Your task to perform on an android device: allow notifications from all sites in the chrome app Image 0: 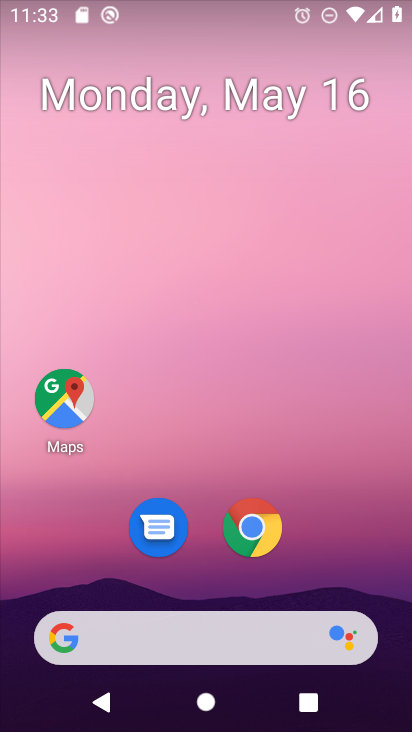
Step 0: click (262, 529)
Your task to perform on an android device: allow notifications from all sites in the chrome app Image 1: 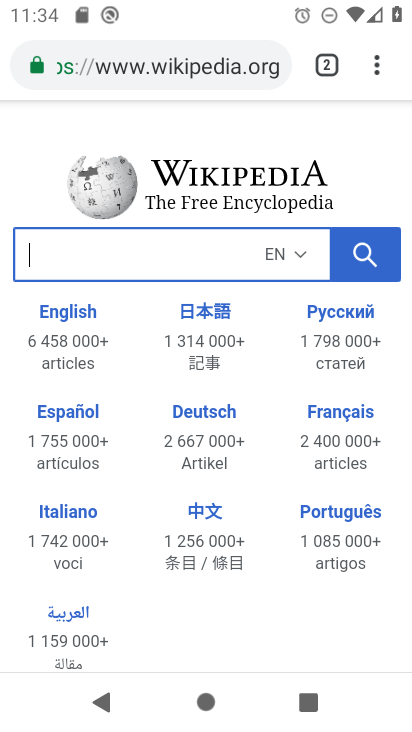
Step 1: click (378, 66)
Your task to perform on an android device: allow notifications from all sites in the chrome app Image 2: 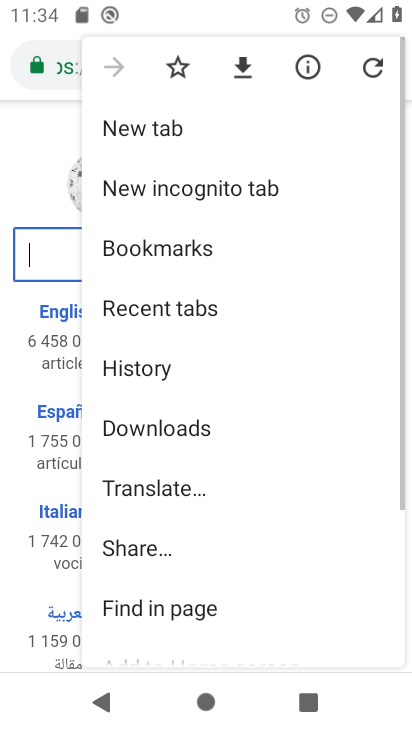
Step 2: drag from (221, 531) to (214, 152)
Your task to perform on an android device: allow notifications from all sites in the chrome app Image 3: 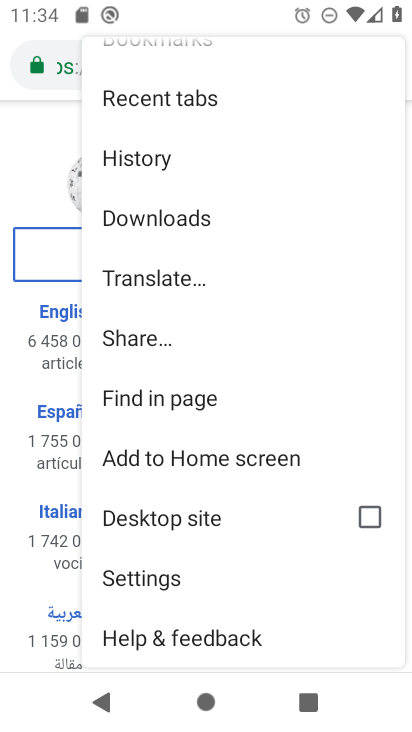
Step 3: click (168, 568)
Your task to perform on an android device: allow notifications from all sites in the chrome app Image 4: 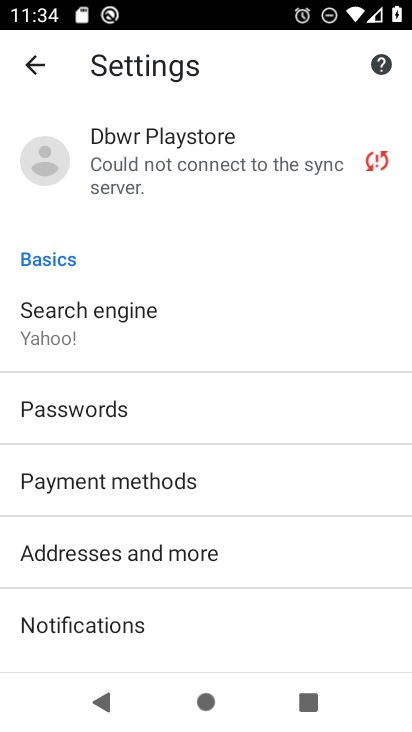
Step 4: drag from (168, 568) to (191, 21)
Your task to perform on an android device: allow notifications from all sites in the chrome app Image 5: 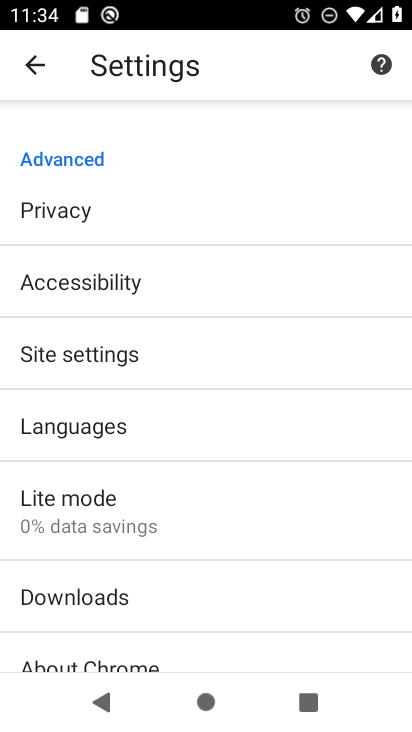
Step 5: click (79, 350)
Your task to perform on an android device: allow notifications from all sites in the chrome app Image 6: 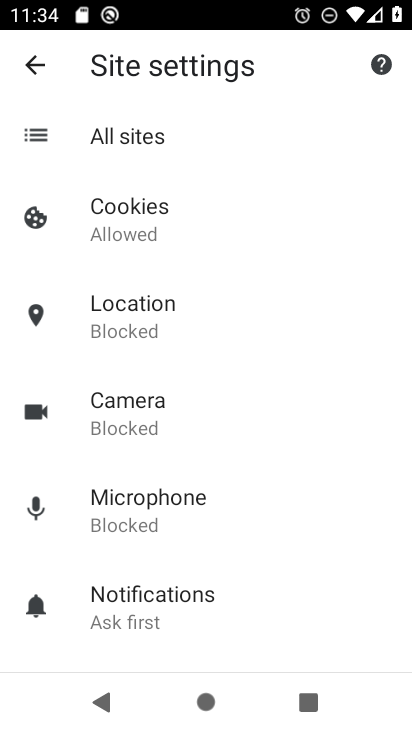
Step 6: click (155, 602)
Your task to perform on an android device: allow notifications from all sites in the chrome app Image 7: 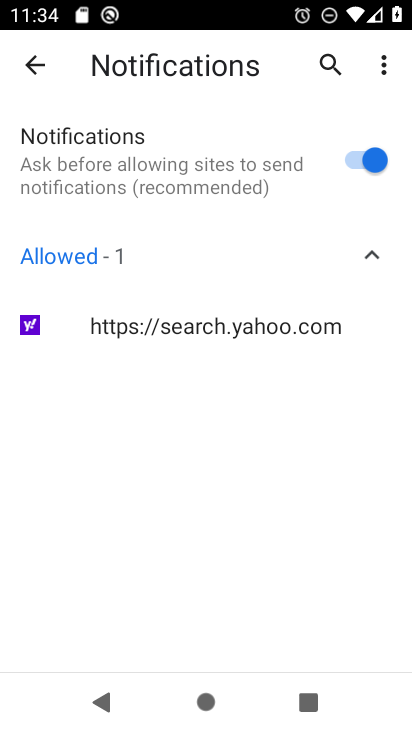
Step 7: task complete